Your task to perform on an android device: Go to Reddit.com Image 0: 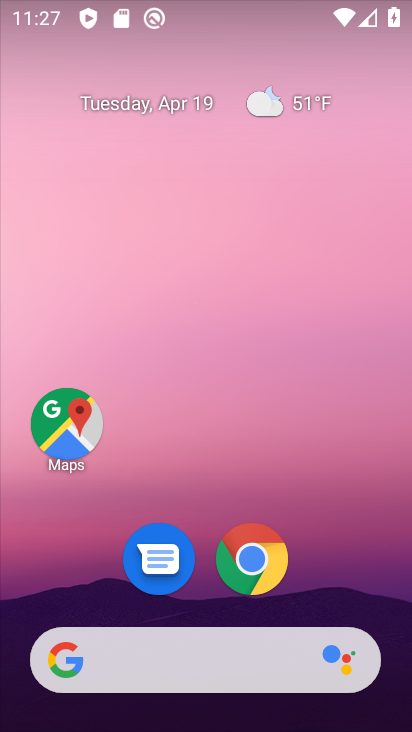
Step 0: drag from (282, 498) to (227, 155)
Your task to perform on an android device: Go to Reddit.com Image 1: 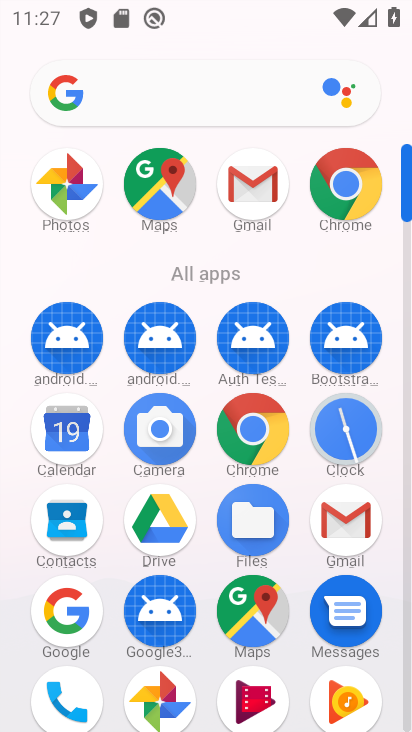
Step 1: click (347, 175)
Your task to perform on an android device: Go to Reddit.com Image 2: 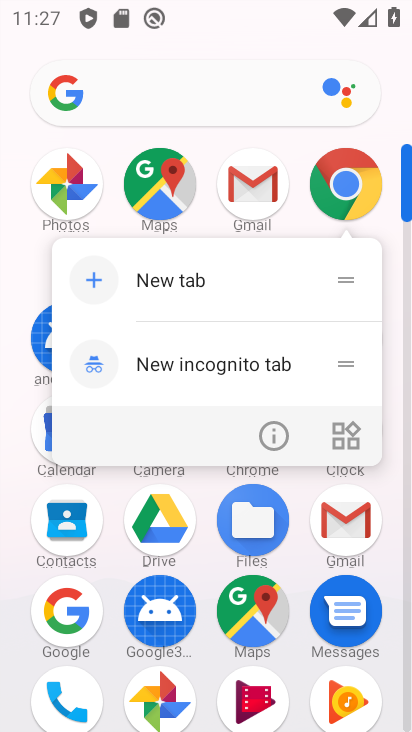
Step 2: click (338, 189)
Your task to perform on an android device: Go to Reddit.com Image 3: 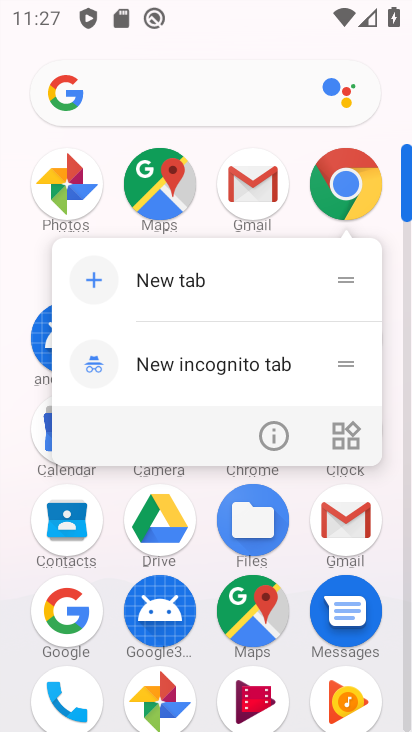
Step 3: click (359, 220)
Your task to perform on an android device: Go to Reddit.com Image 4: 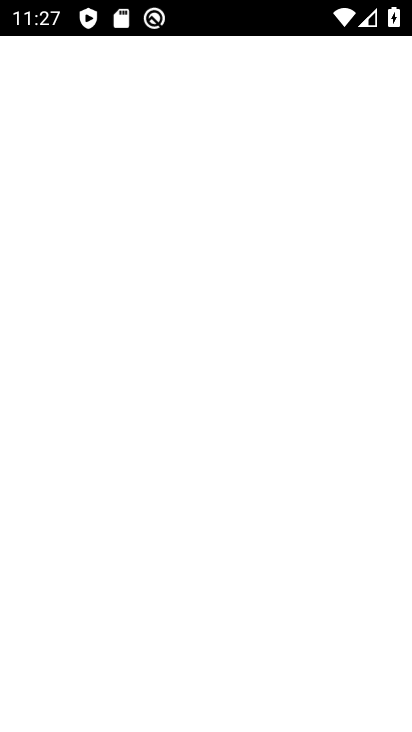
Step 4: click (348, 181)
Your task to perform on an android device: Go to Reddit.com Image 5: 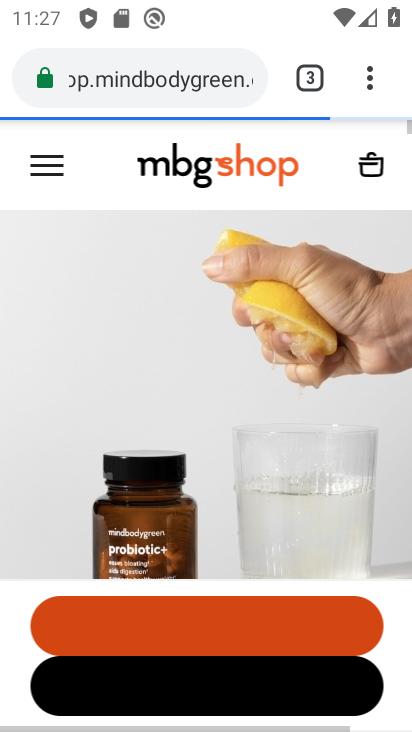
Step 5: press back button
Your task to perform on an android device: Go to Reddit.com Image 6: 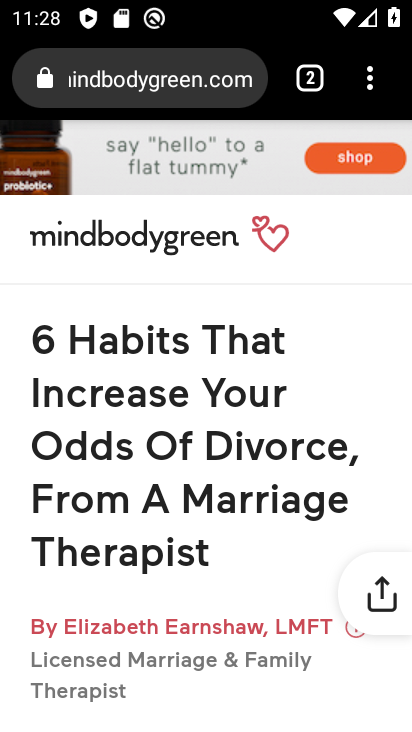
Step 6: click (238, 78)
Your task to perform on an android device: Go to Reddit.com Image 7: 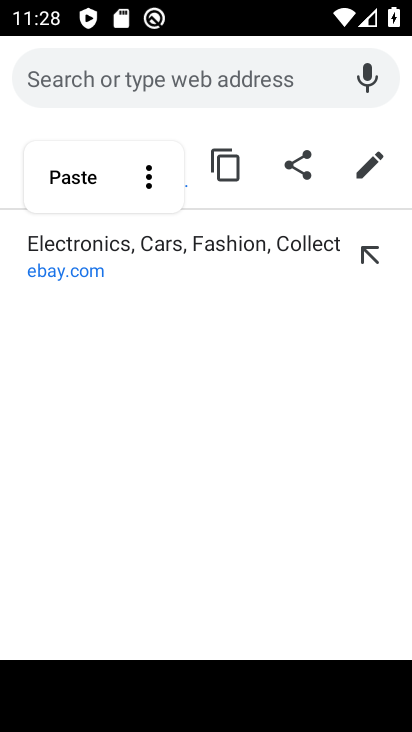
Step 7: type "www. reddit.com"
Your task to perform on an android device: Go to Reddit.com Image 8: 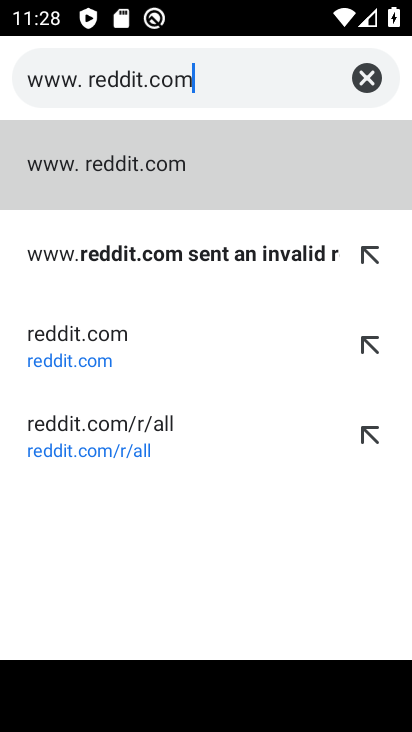
Step 8: click (100, 178)
Your task to perform on an android device: Go to Reddit.com Image 9: 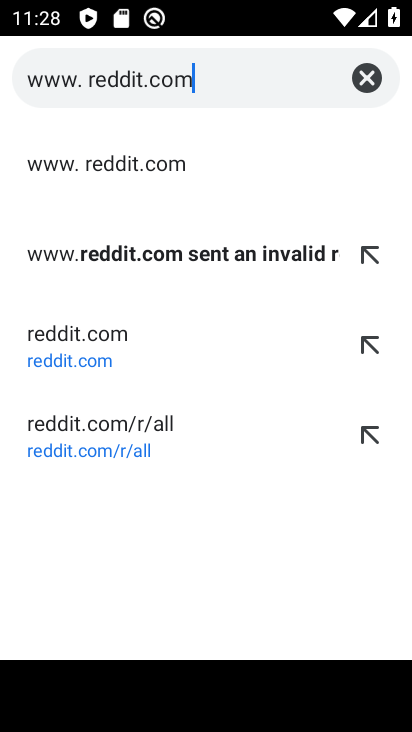
Step 9: click (66, 368)
Your task to perform on an android device: Go to Reddit.com Image 10: 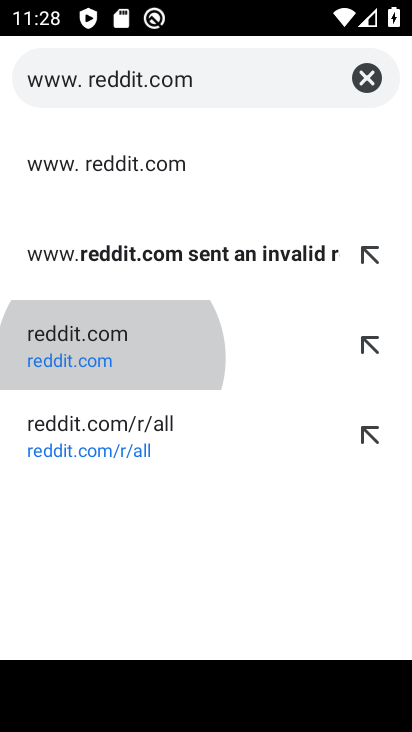
Step 10: click (63, 360)
Your task to perform on an android device: Go to Reddit.com Image 11: 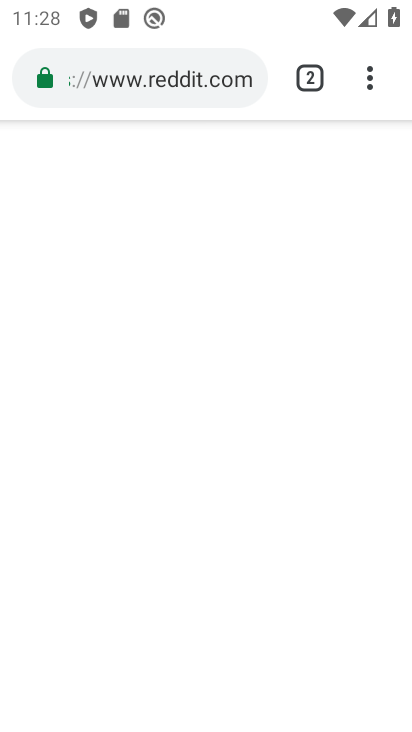
Step 11: task complete